Your task to perform on an android device: open app "Yahoo Mail" Image 0: 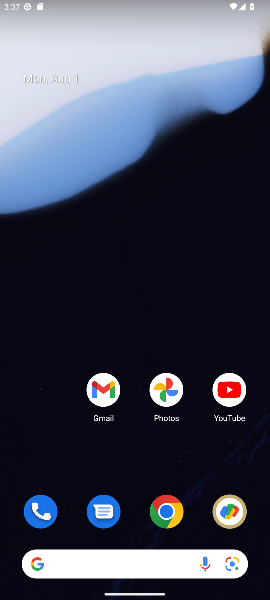
Step 0: drag from (129, 483) to (183, 9)
Your task to perform on an android device: open app "Yahoo Mail" Image 1: 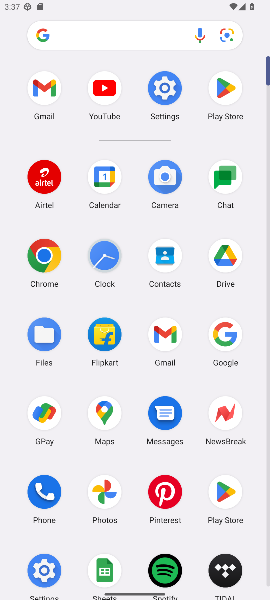
Step 1: click (219, 101)
Your task to perform on an android device: open app "Yahoo Mail" Image 2: 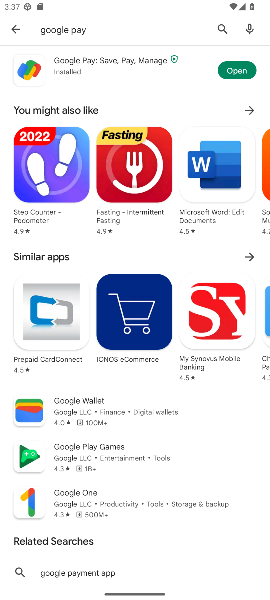
Step 2: click (16, 26)
Your task to perform on an android device: open app "Yahoo Mail" Image 3: 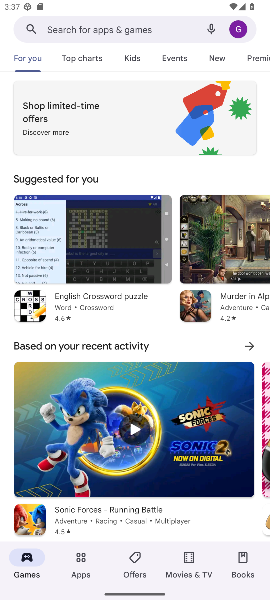
Step 3: click (126, 27)
Your task to perform on an android device: open app "Yahoo Mail" Image 4: 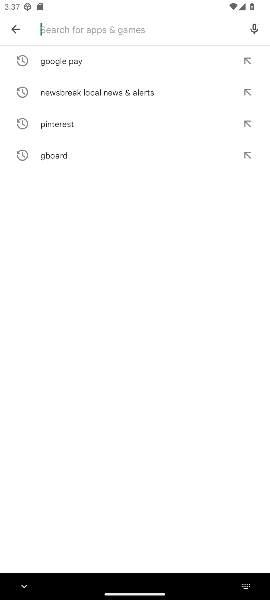
Step 4: type "Yahoo Mail"
Your task to perform on an android device: open app "Yahoo Mail" Image 5: 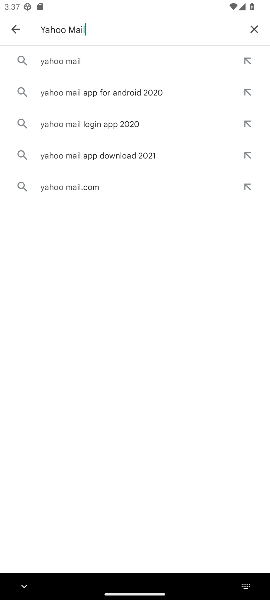
Step 5: click (69, 63)
Your task to perform on an android device: open app "Yahoo Mail" Image 6: 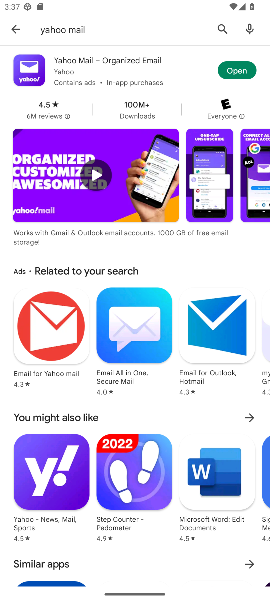
Step 6: click (238, 71)
Your task to perform on an android device: open app "Yahoo Mail" Image 7: 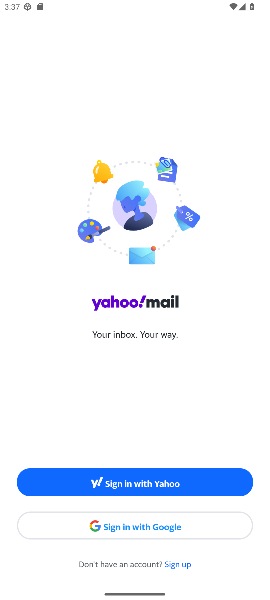
Step 7: task complete